Your task to perform on an android device: Open the web browser Image 0: 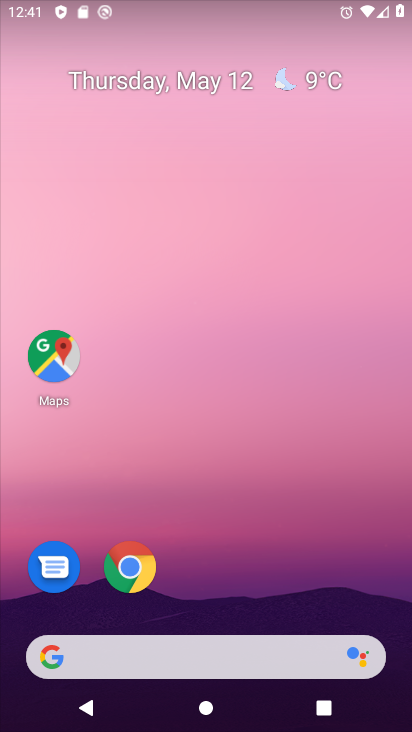
Step 0: drag from (180, 625) to (258, 123)
Your task to perform on an android device: Open the web browser Image 1: 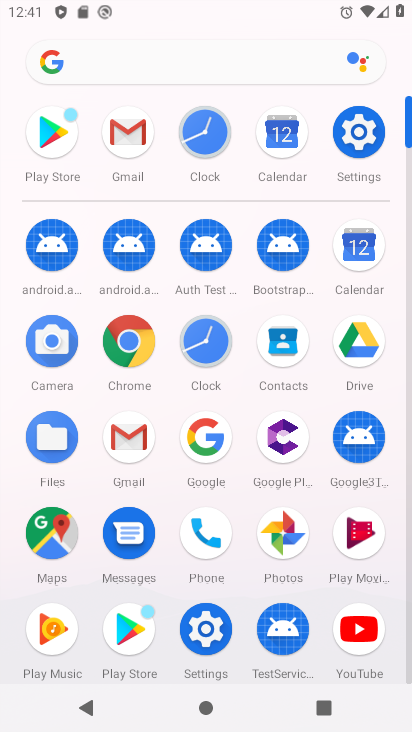
Step 1: click (210, 450)
Your task to perform on an android device: Open the web browser Image 2: 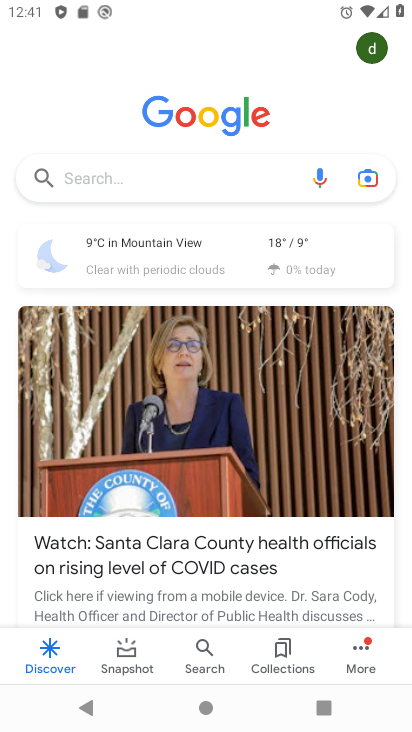
Step 2: task complete